Your task to perform on an android device: change the upload size in google photos Image 0: 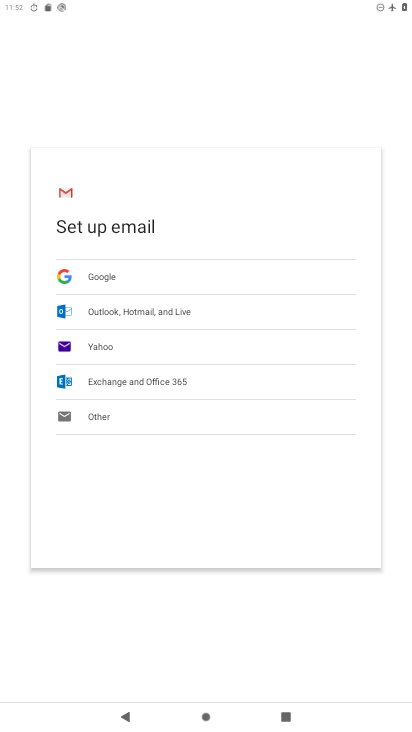
Step 0: press home button
Your task to perform on an android device: change the upload size in google photos Image 1: 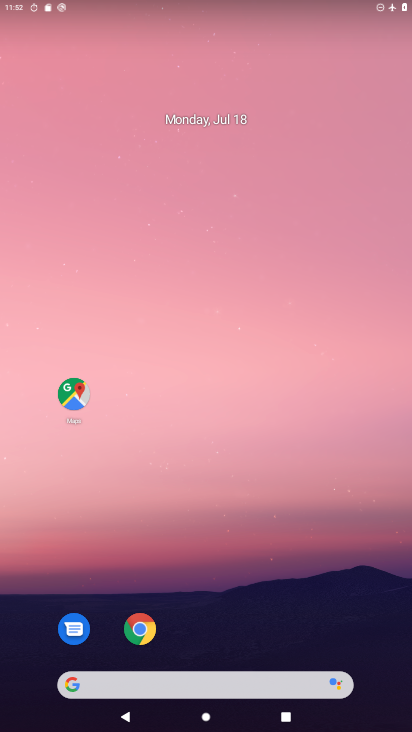
Step 1: drag from (274, 646) to (218, 74)
Your task to perform on an android device: change the upload size in google photos Image 2: 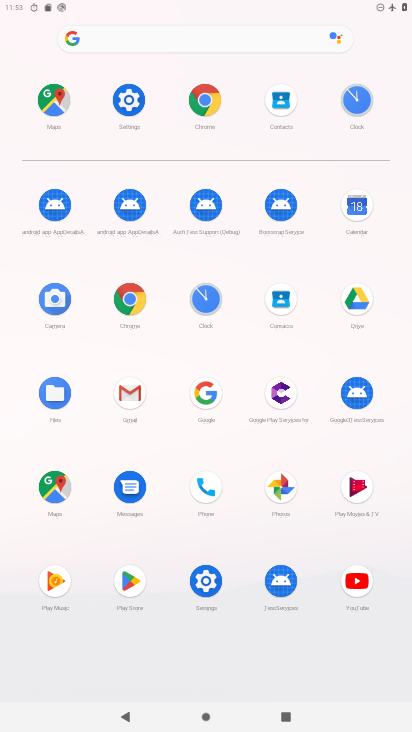
Step 2: click (286, 489)
Your task to perform on an android device: change the upload size in google photos Image 3: 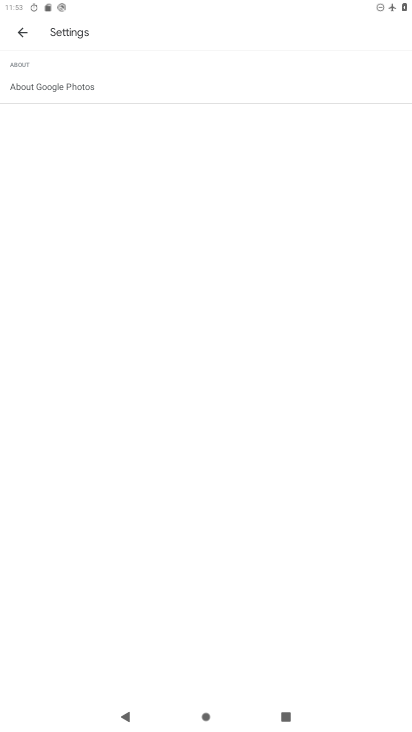
Step 3: click (23, 30)
Your task to perform on an android device: change the upload size in google photos Image 4: 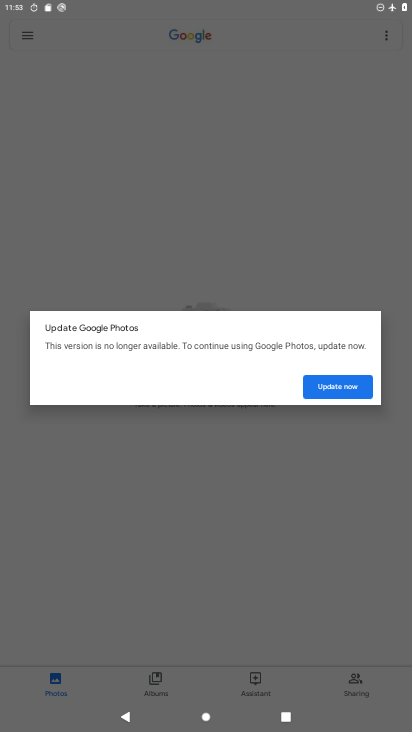
Step 4: click (303, 436)
Your task to perform on an android device: change the upload size in google photos Image 5: 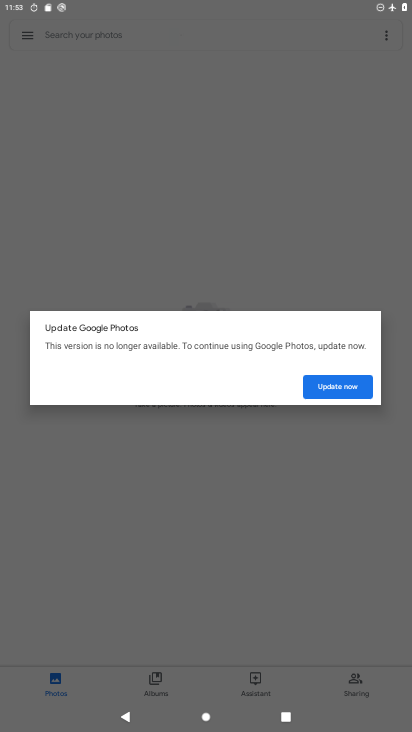
Step 5: click (332, 388)
Your task to perform on an android device: change the upload size in google photos Image 6: 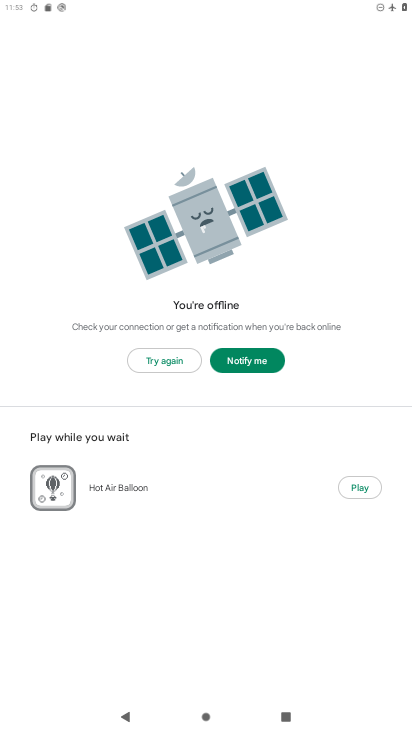
Step 6: task complete